Your task to perform on an android device: Open the calendar app, open the side menu, and click the "Day" option Image 0: 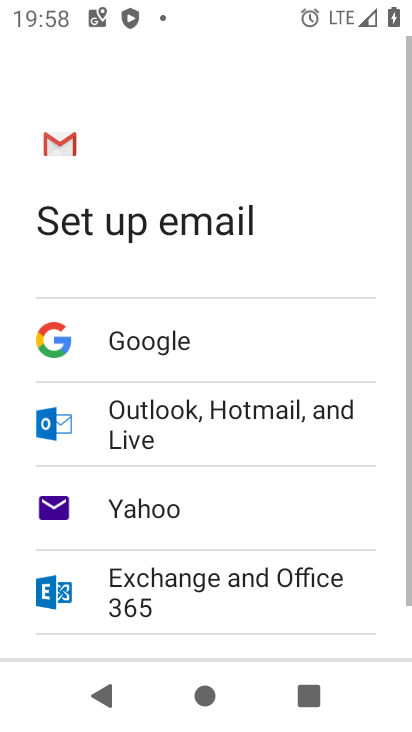
Step 0: drag from (337, 486) to (277, 117)
Your task to perform on an android device: Open the calendar app, open the side menu, and click the "Day" option Image 1: 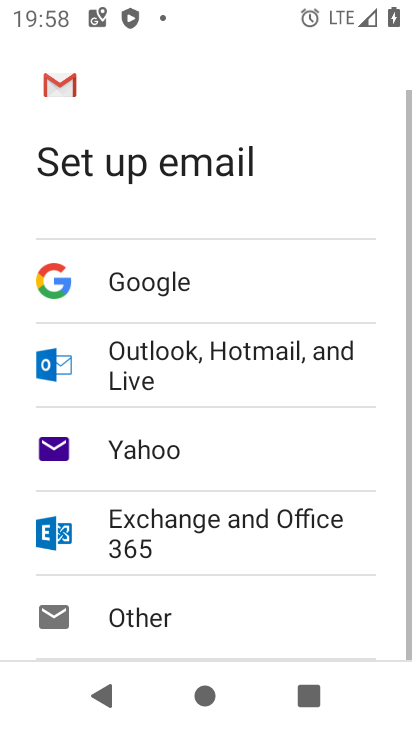
Step 1: press home button
Your task to perform on an android device: Open the calendar app, open the side menu, and click the "Day" option Image 2: 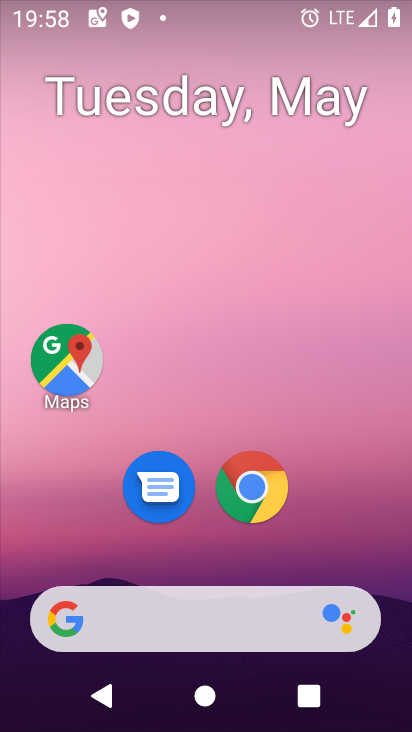
Step 2: drag from (337, 515) to (262, 25)
Your task to perform on an android device: Open the calendar app, open the side menu, and click the "Day" option Image 3: 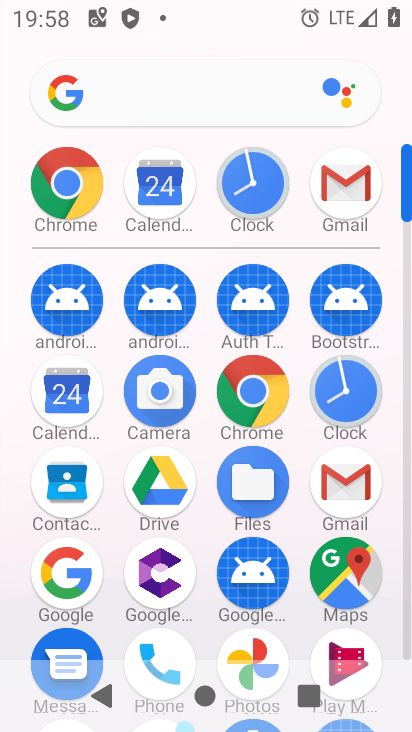
Step 3: click (72, 386)
Your task to perform on an android device: Open the calendar app, open the side menu, and click the "Day" option Image 4: 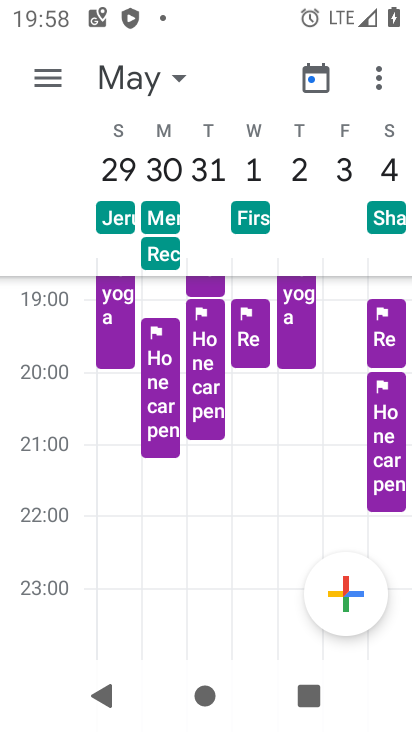
Step 4: click (47, 73)
Your task to perform on an android device: Open the calendar app, open the side menu, and click the "Day" option Image 5: 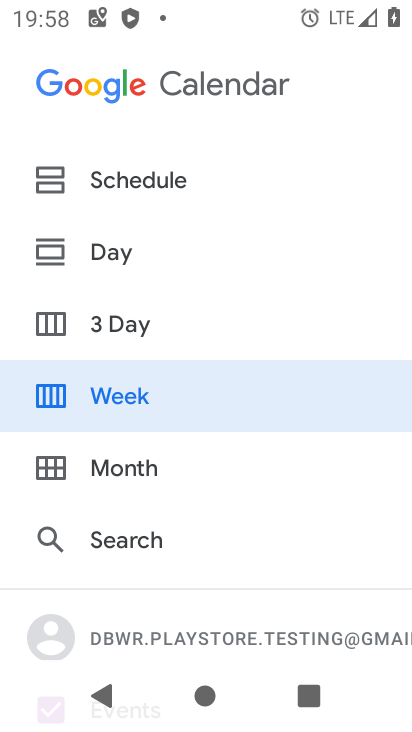
Step 5: click (104, 248)
Your task to perform on an android device: Open the calendar app, open the side menu, and click the "Day" option Image 6: 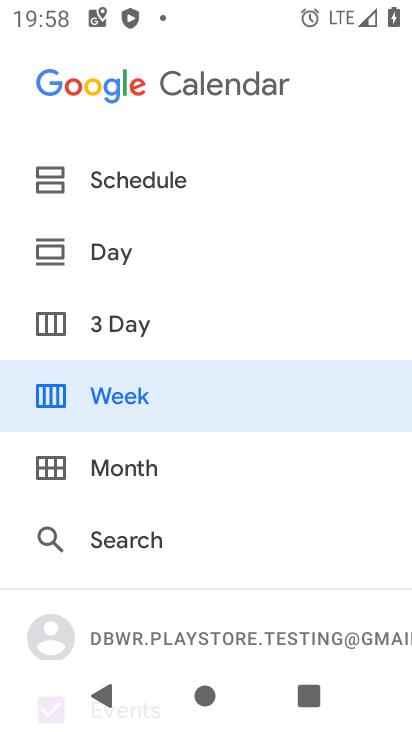
Step 6: click (110, 253)
Your task to perform on an android device: Open the calendar app, open the side menu, and click the "Day" option Image 7: 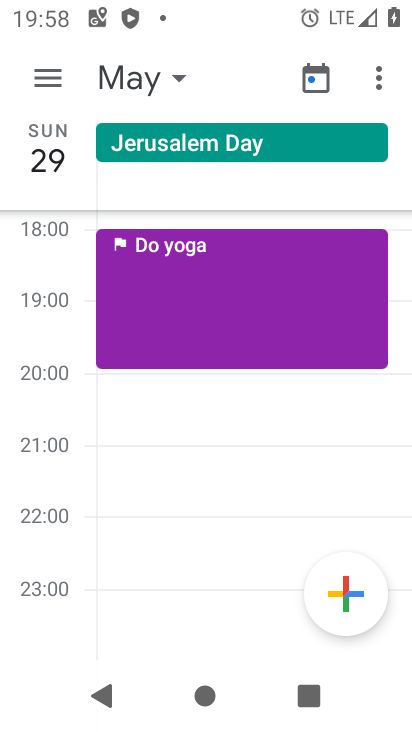
Step 7: task complete